Your task to perform on an android device: Open the phone app and click the voicemail tab. Image 0: 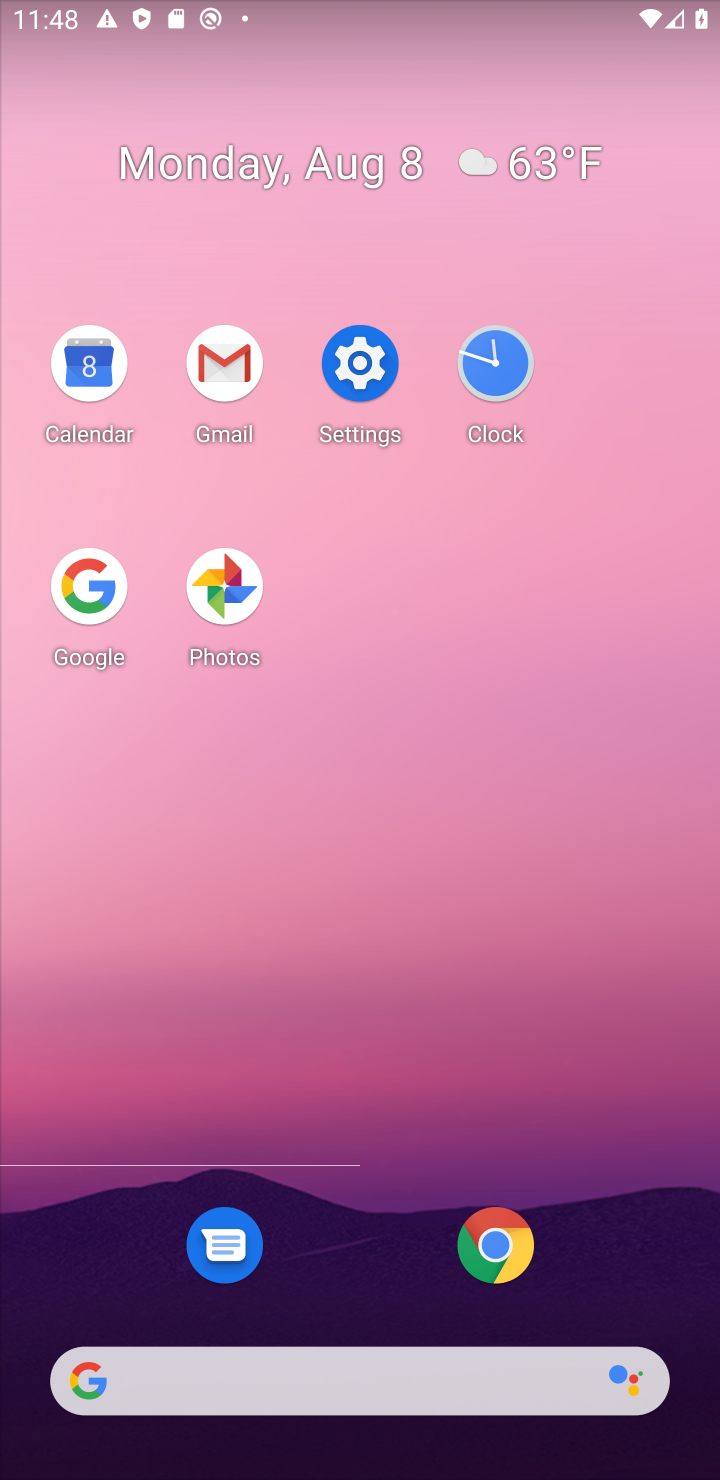
Step 0: drag from (399, 1179) to (391, 399)
Your task to perform on an android device: Open the phone app and click the voicemail tab. Image 1: 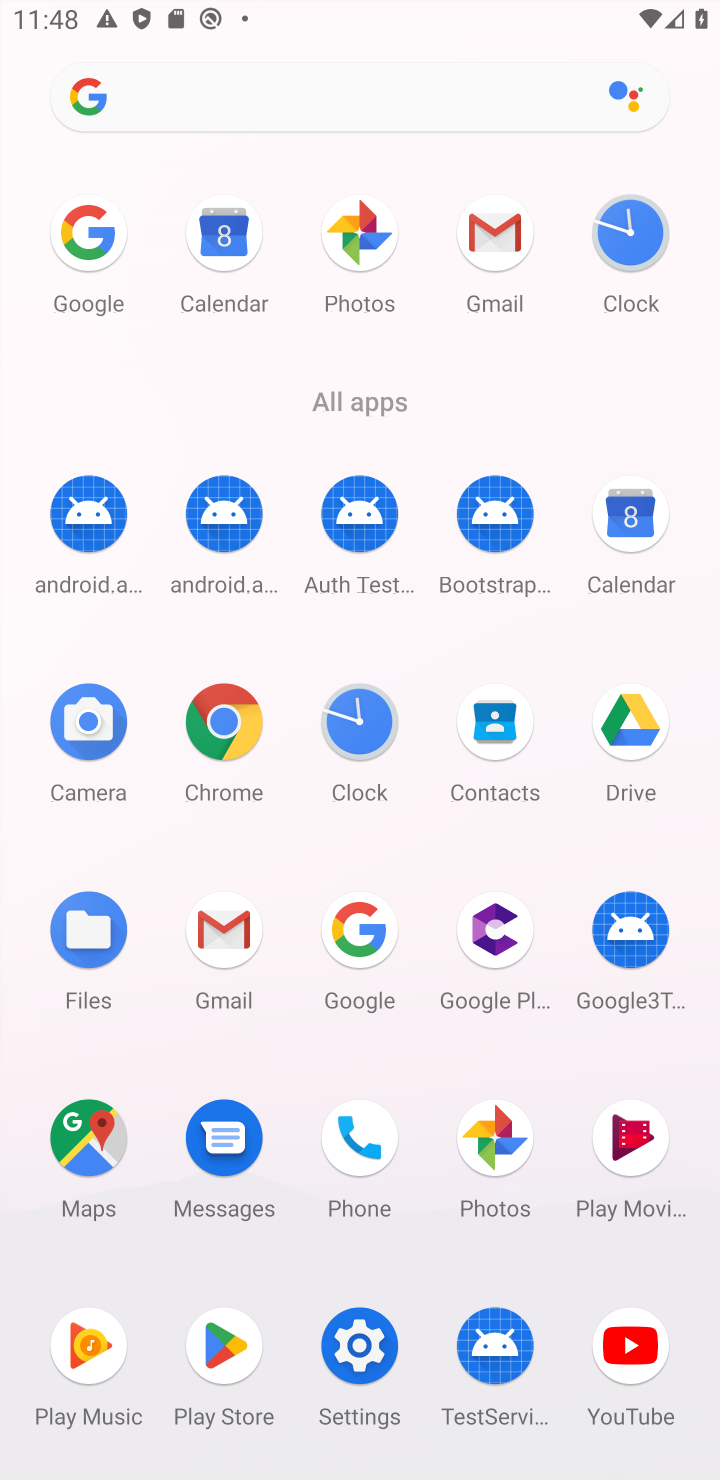
Step 1: drag from (550, 1188) to (512, 524)
Your task to perform on an android device: Open the phone app and click the voicemail tab. Image 2: 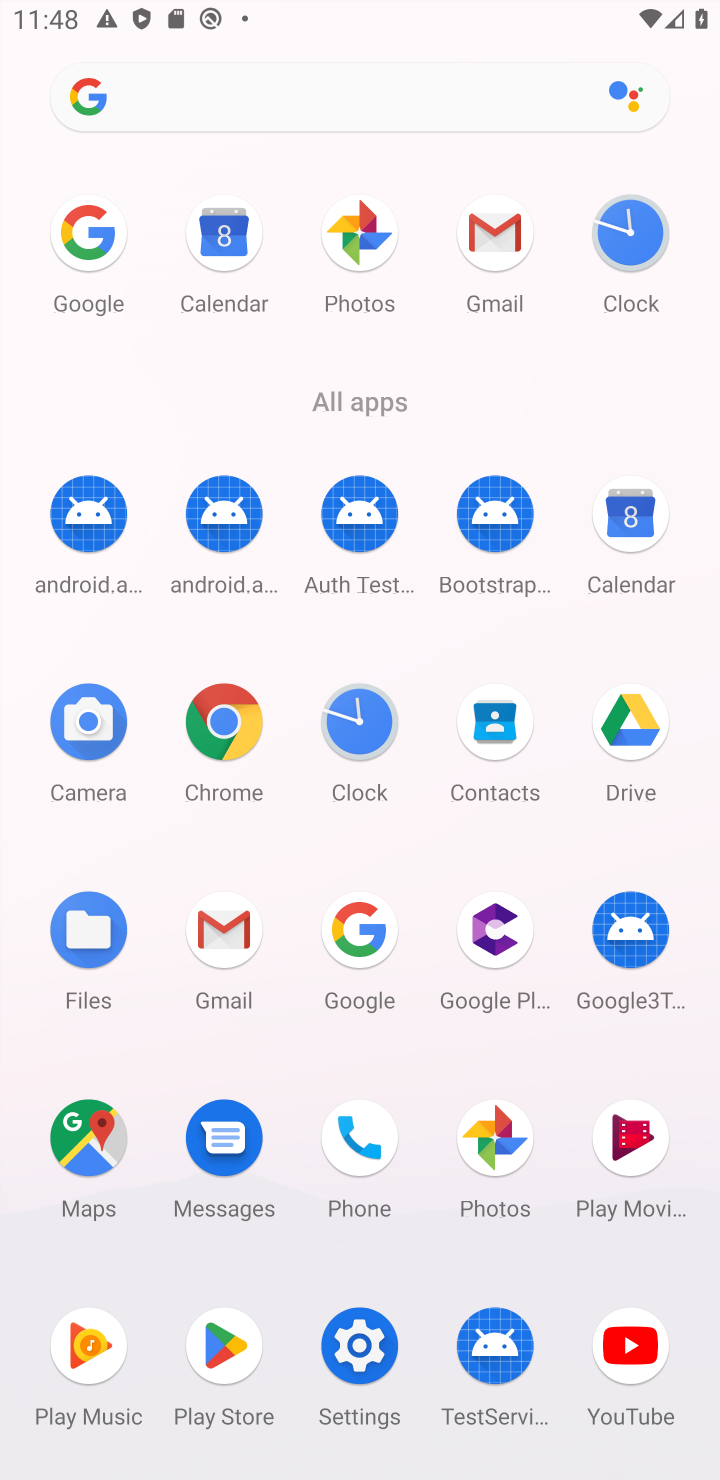
Step 2: drag from (425, 1189) to (514, 479)
Your task to perform on an android device: Open the phone app and click the voicemail tab. Image 3: 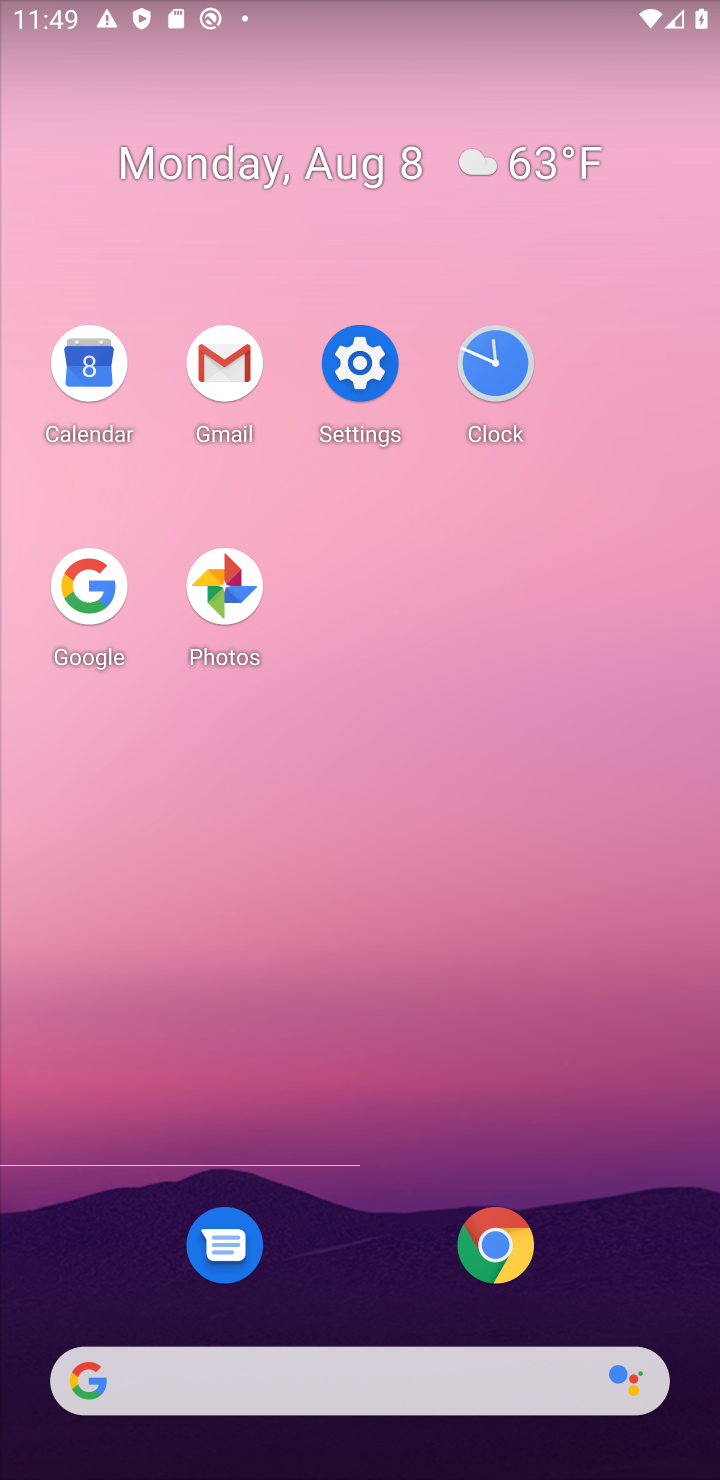
Step 3: drag from (326, 1133) to (352, 418)
Your task to perform on an android device: Open the phone app and click the voicemail tab. Image 4: 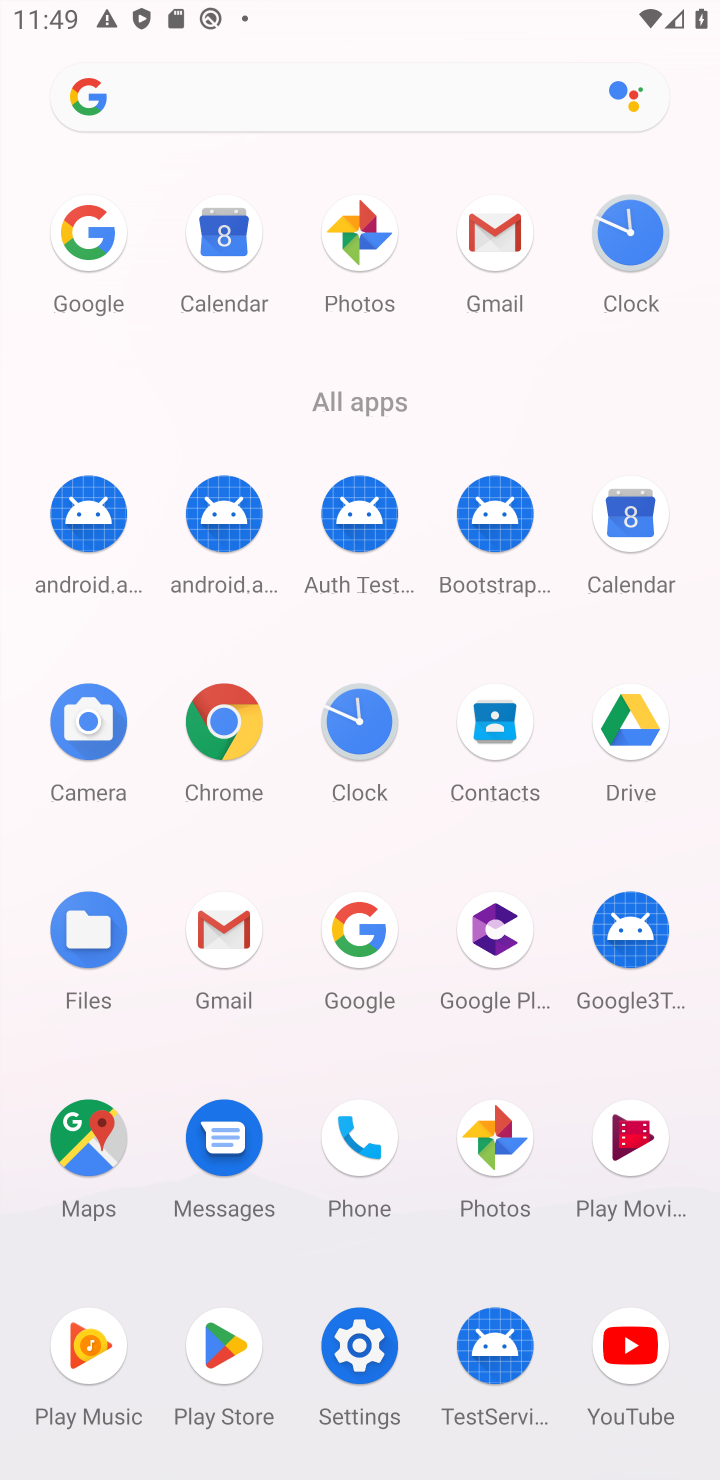
Step 4: click (365, 1172)
Your task to perform on an android device: Open the phone app and click the voicemail tab. Image 5: 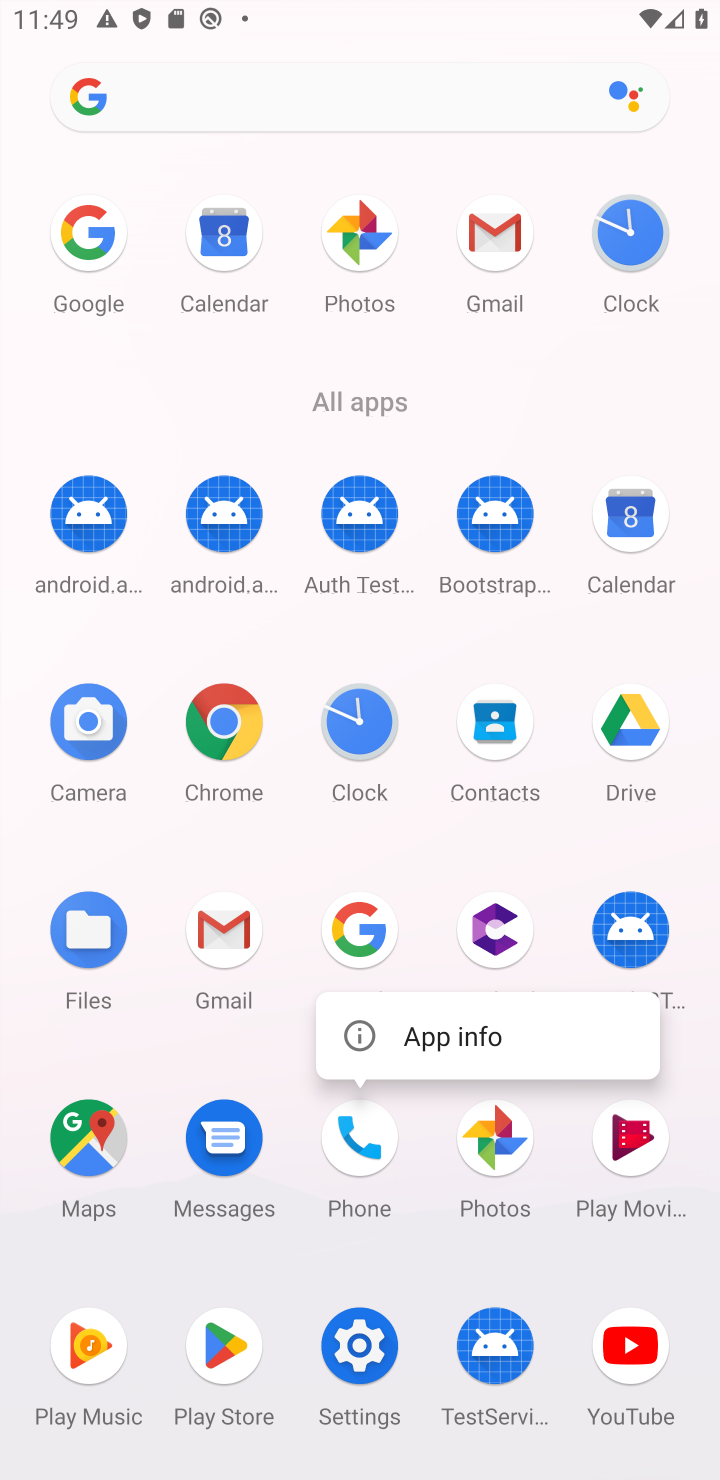
Step 5: click (375, 1128)
Your task to perform on an android device: Open the phone app and click the voicemail tab. Image 6: 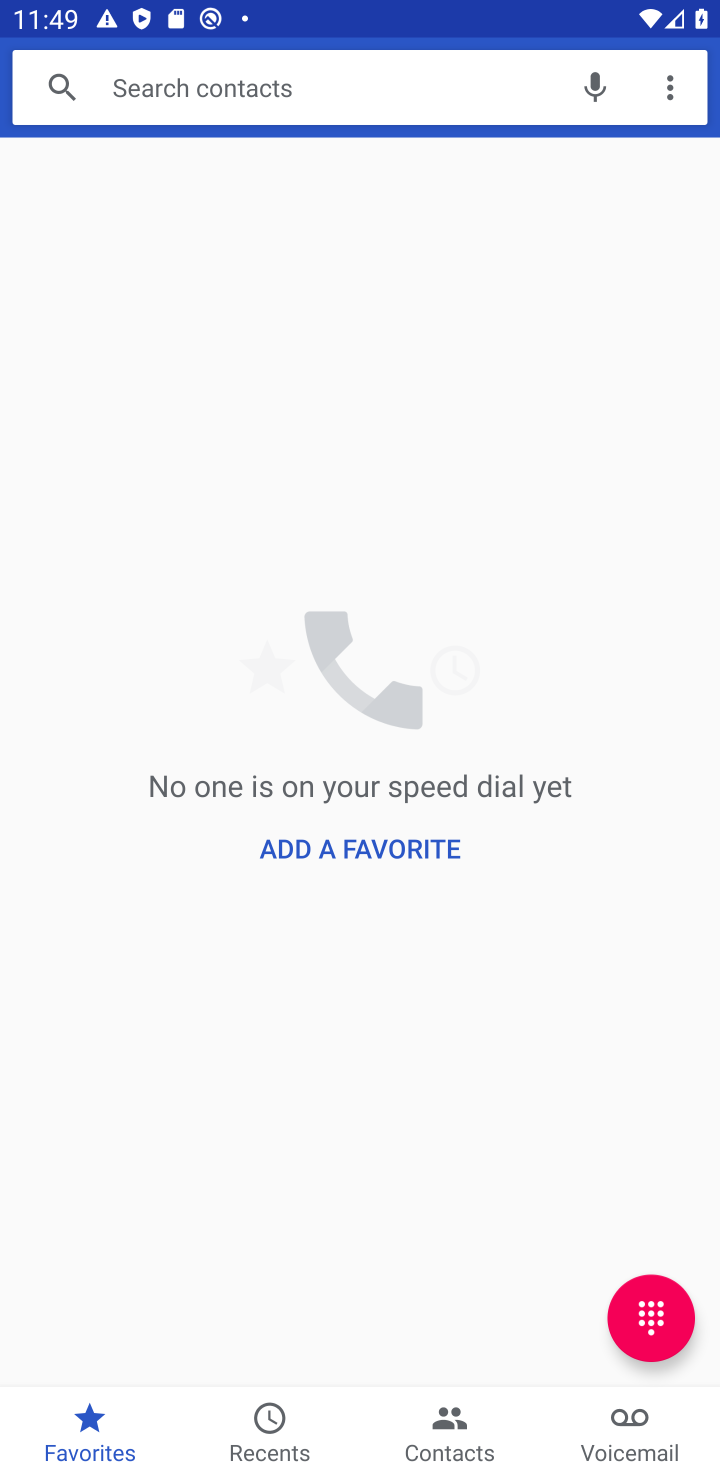
Step 6: click (677, 1455)
Your task to perform on an android device: Open the phone app and click the voicemail tab. Image 7: 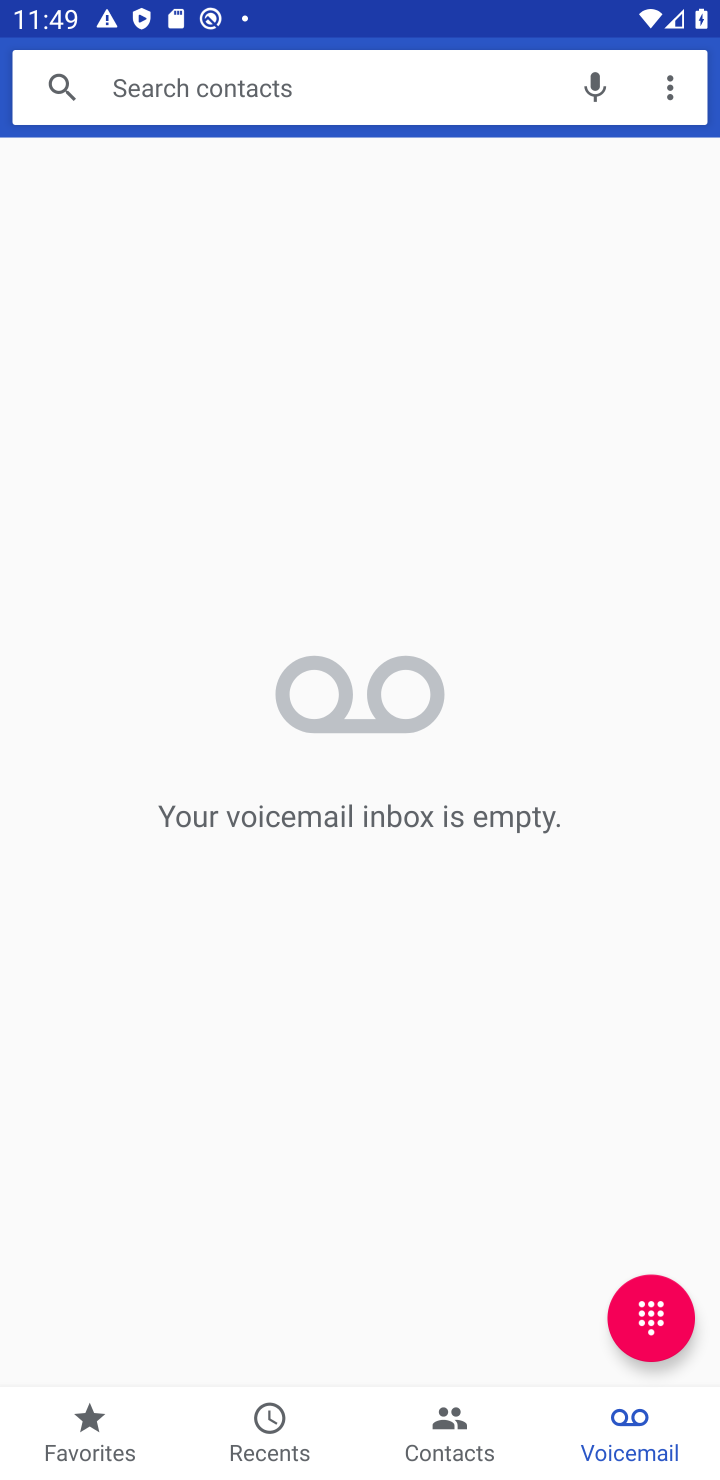
Step 7: task complete